Your task to perform on an android device: Add macbook pro 13 inch to the cart on costco, then select checkout. Image 0: 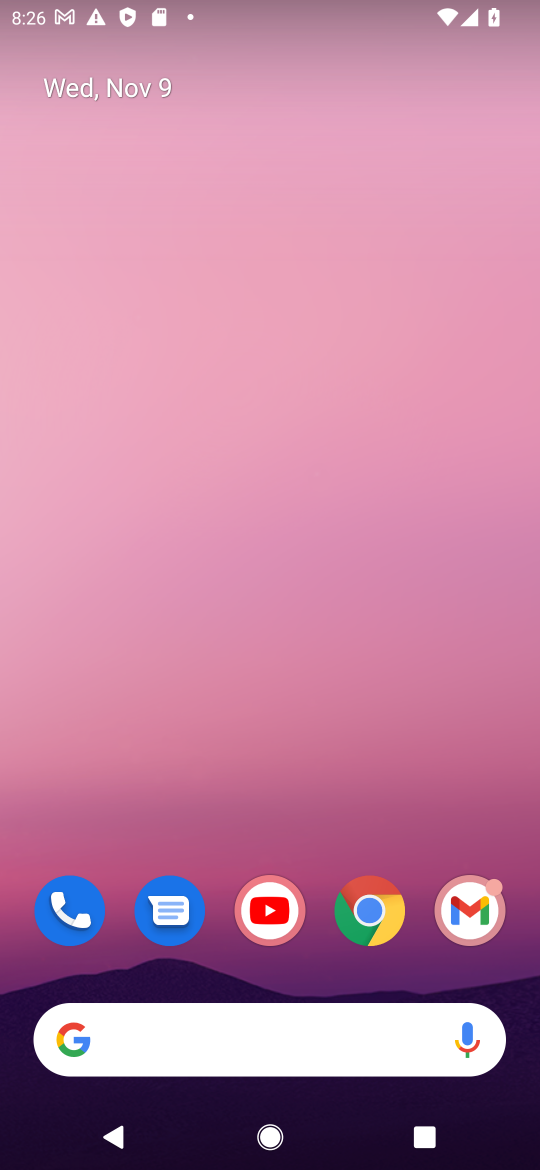
Step 0: click (368, 921)
Your task to perform on an android device: Add macbook pro 13 inch to the cart on costco, then select checkout. Image 1: 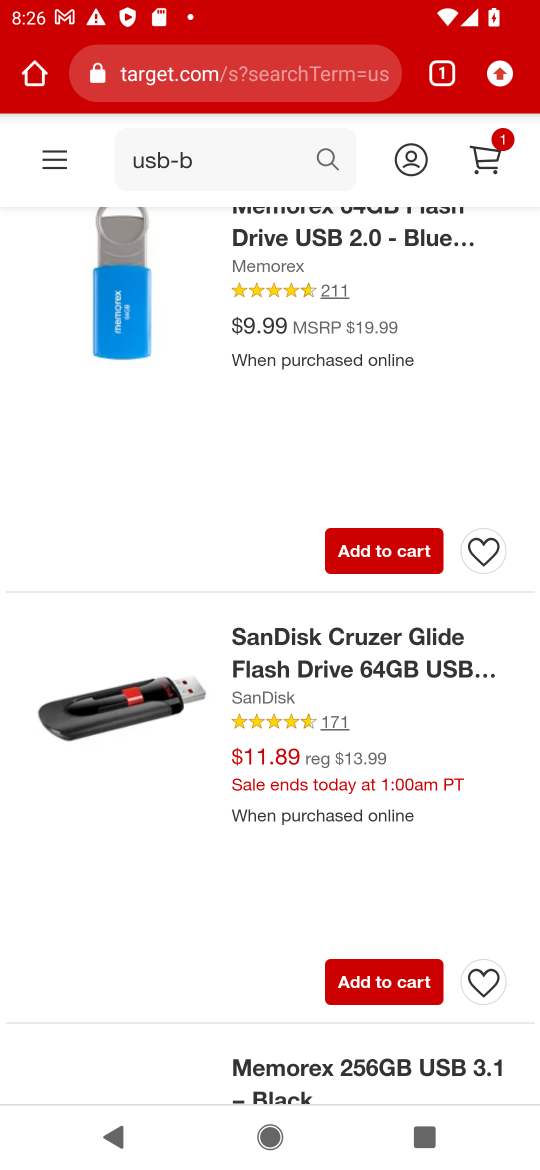
Step 1: click (218, 88)
Your task to perform on an android device: Add macbook pro 13 inch to the cart on costco, then select checkout. Image 2: 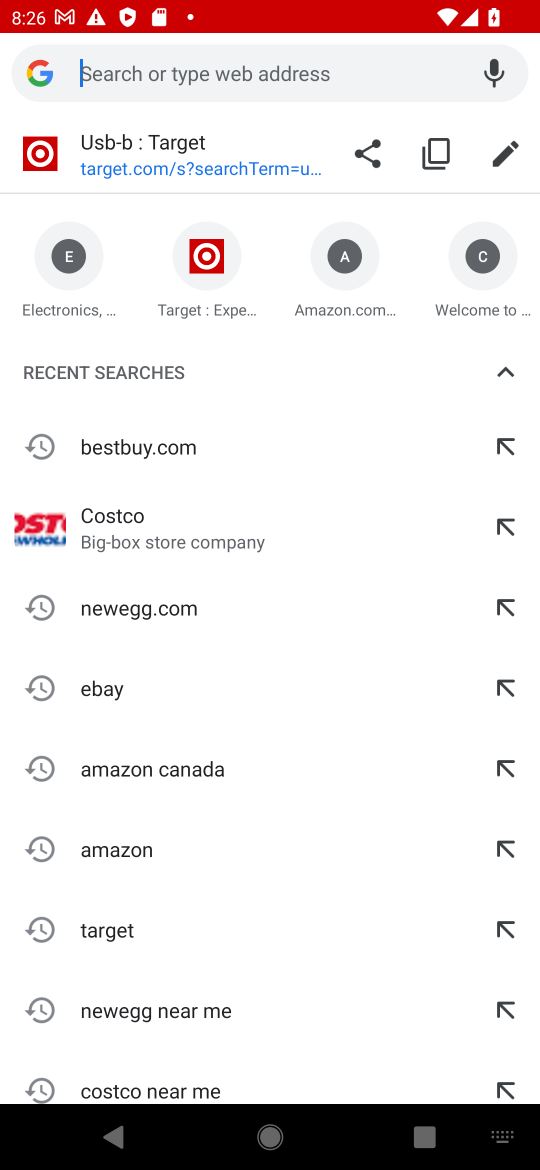
Step 2: click (134, 535)
Your task to perform on an android device: Add macbook pro 13 inch to the cart on costco, then select checkout. Image 3: 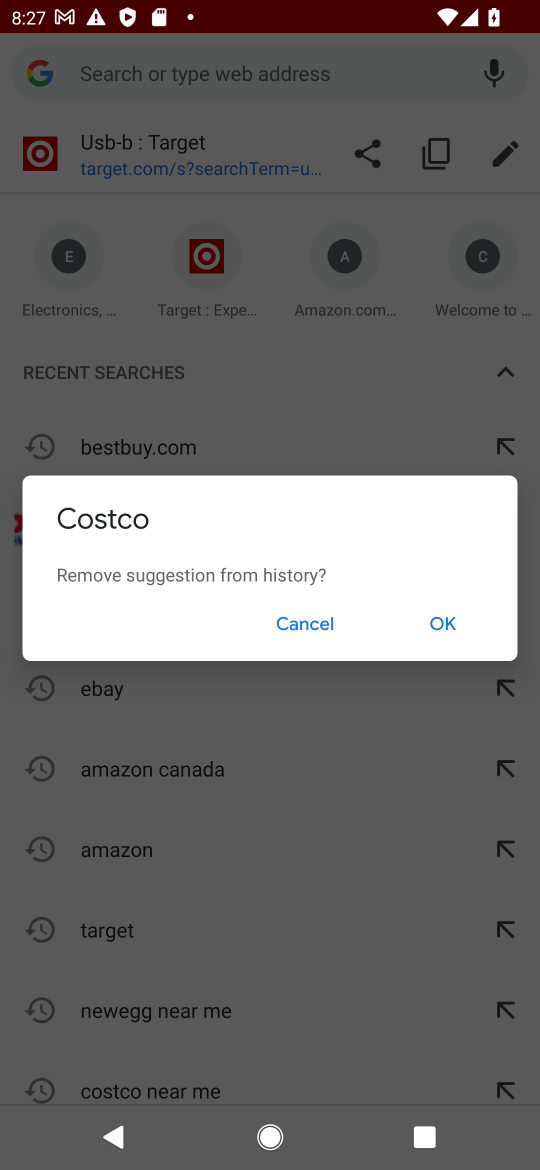
Step 3: click (293, 621)
Your task to perform on an android device: Add macbook pro 13 inch to the cart on costco, then select checkout. Image 4: 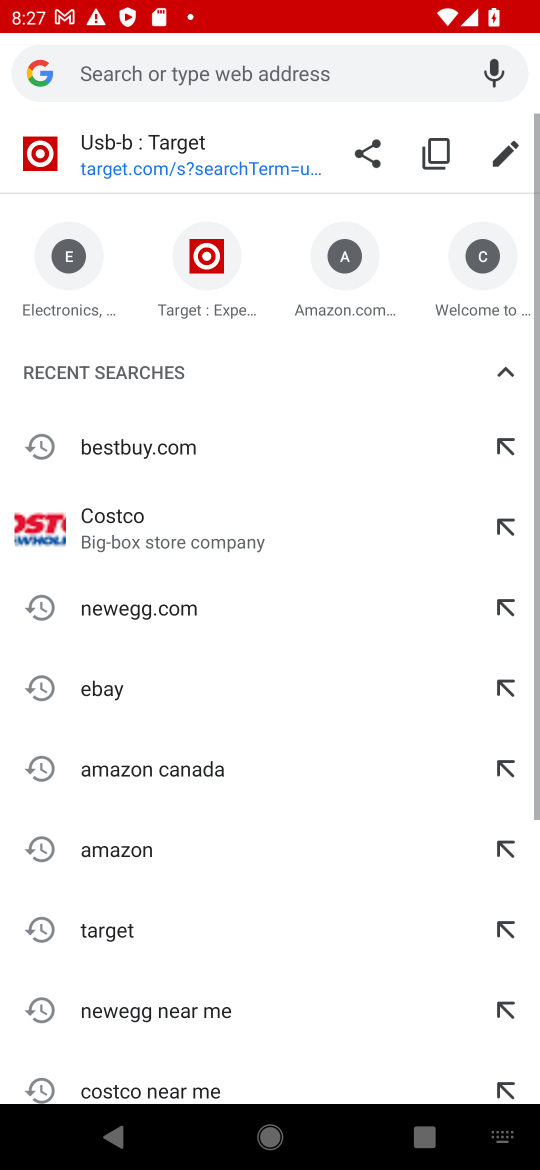
Step 4: click (153, 539)
Your task to perform on an android device: Add macbook pro 13 inch to the cart on costco, then select checkout. Image 5: 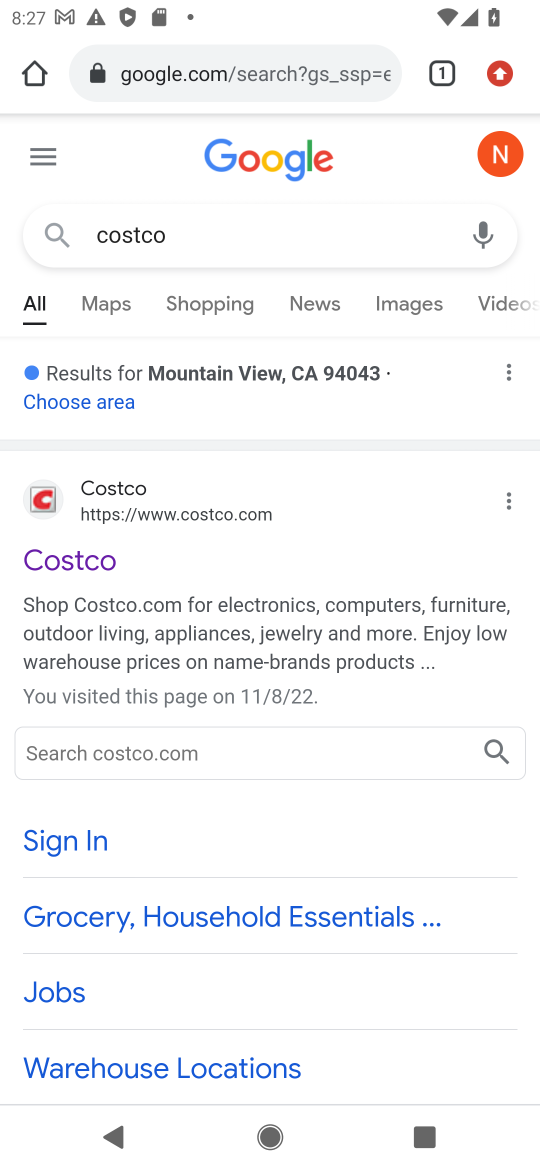
Step 5: click (100, 567)
Your task to perform on an android device: Add macbook pro 13 inch to the cart on costco, then select checkout. Image 6: 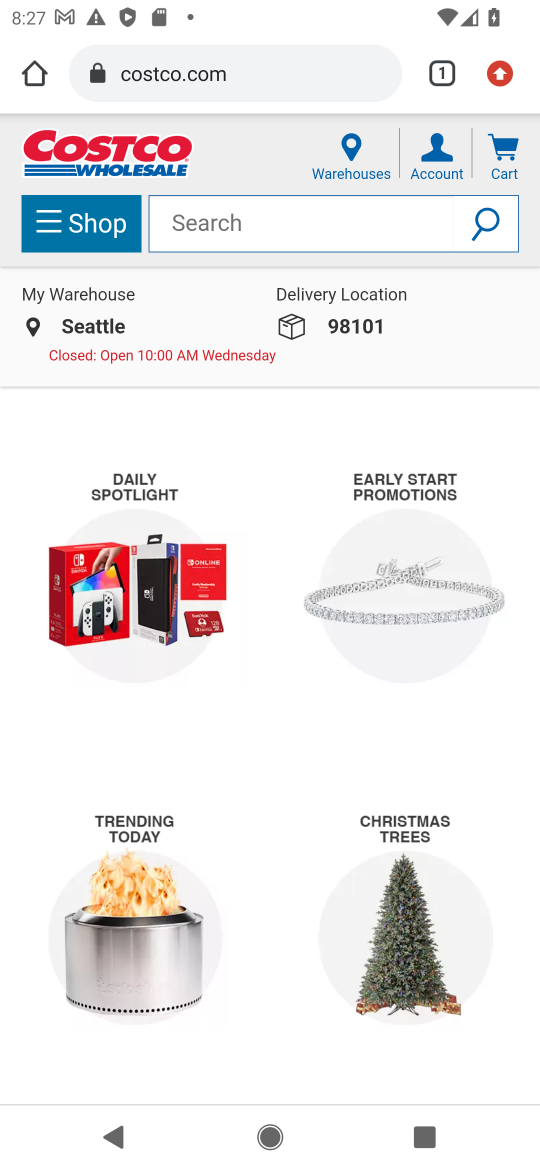
Step 6: click (207, 233)
Your task to perform on an android device: Add macbook pro 13 inch to the cart on costco, then select checkout. Image 7: 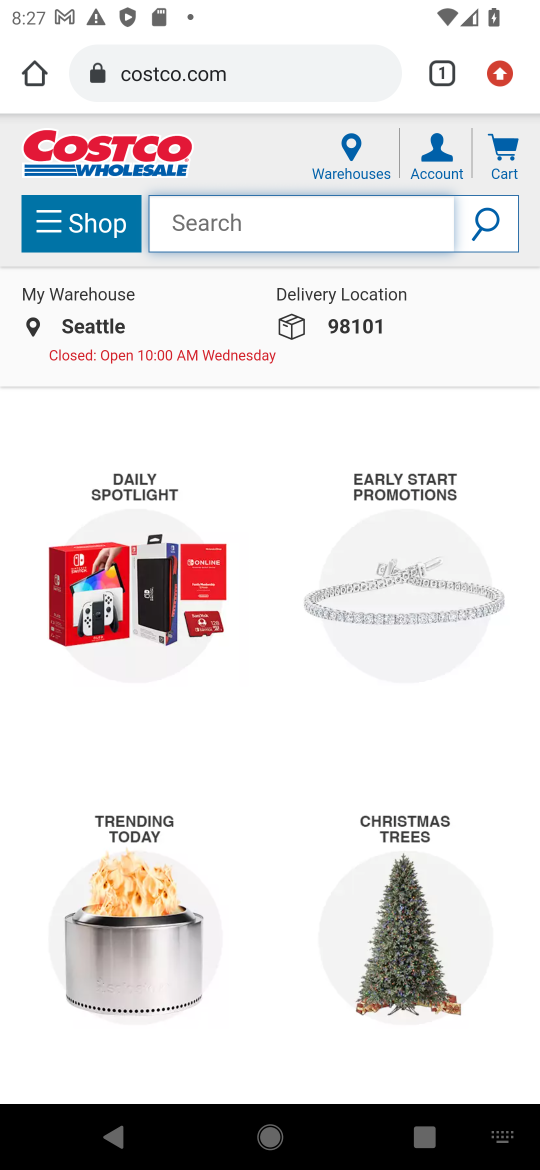
Step 7: type "macbook pro 13 inch"
Your task to perform on an android device: Add macbook pro 13 inch to the cart on costco, then select checkout. Image 8: 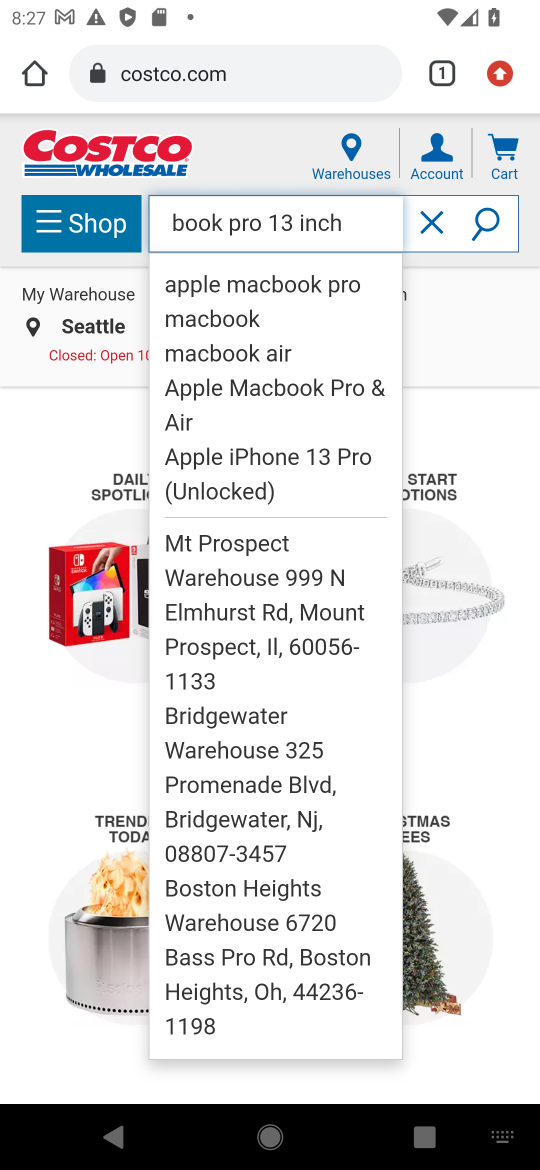
Step 8: click (477, 215)
Your task to perform on an android device: Add macbook pro 13 inch to the cart on costco, then select checkout. Image 9: 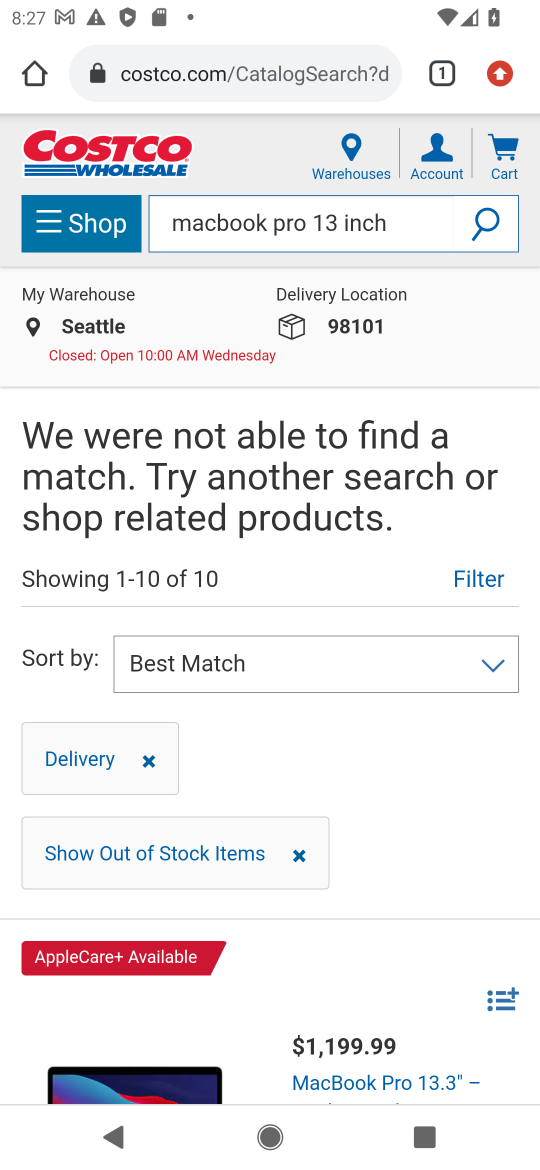
Step 9: task complete